Your task to perform on an android device: turn off airplane mode Image 0: 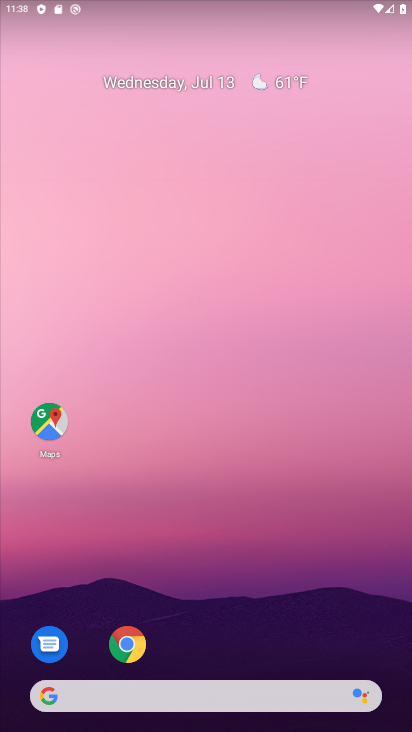
Step 0: drag from (233, 623) to (242, 131)
Your task to perform on an android device: turn off airplane mode Image 1: 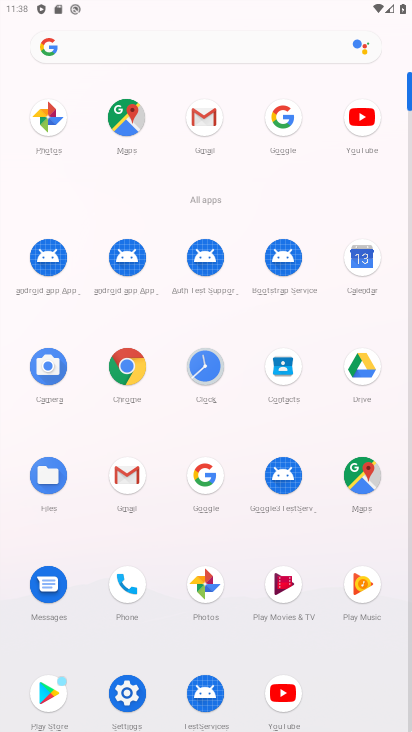
Step 1: click (130, 688)
Your task to perform on an android device: turn off airplane mode Image 2: 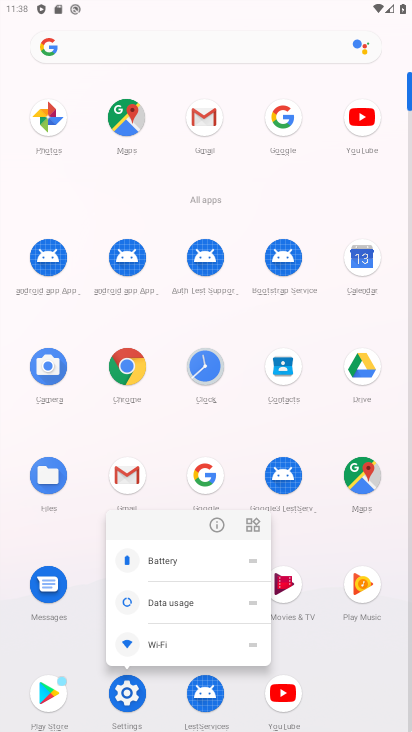
Step 2: click (133, 694)
Your task to perform on an android device: turn off airplane mode Image 3: 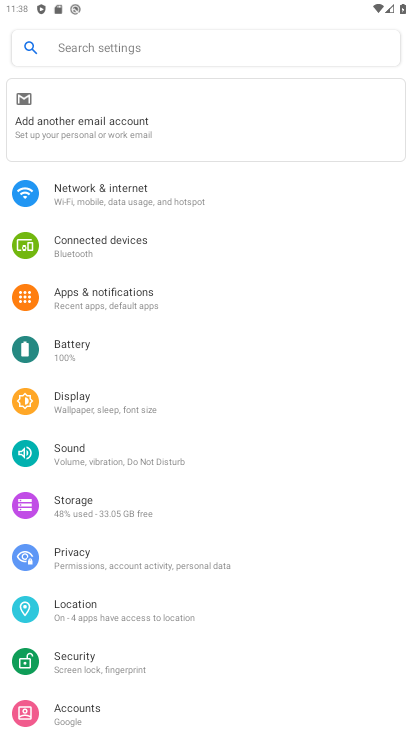
Step 3: click (123, 190)
Your task to perform on an android device: turn off airplane mode Image 4: 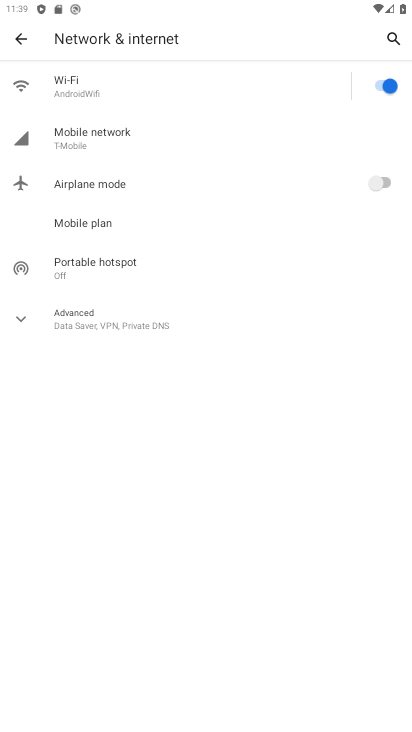
Step 4: task complete